Your task to perform on an android device: choose inbox layout in the gmail app Image 0: 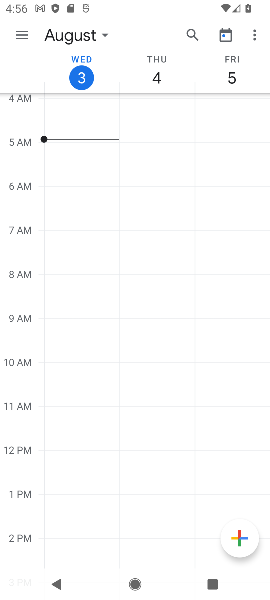
Step 0: press home button
Your task to perform on an android device: choose inbox layout in the gmail app Image 1: 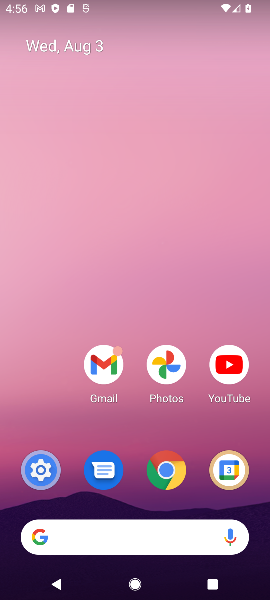
Step 1: drag from (203, 417) to (59, 0)
Your task to perform on an android device: choose inbox layout in the gmail app Image 2: 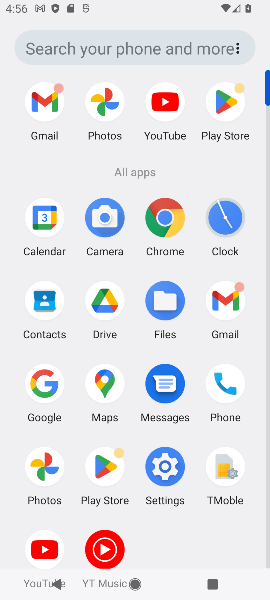
Step 2: click (219, 301)
Your task to perform on an android device: choose inbox layout in the gmail app Image 3: 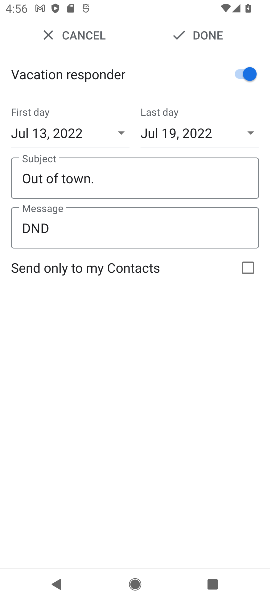
Step 3: click (40, 30)
Your task to perform on an android device: choose inbox layout in the gmail app Image 4: 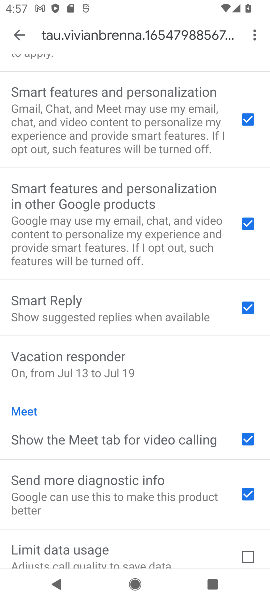
Step 4: drag from (75, 87) to (136, 382)
Your task to perform on an android device: choose inbox layout in the gmail app Image 5: 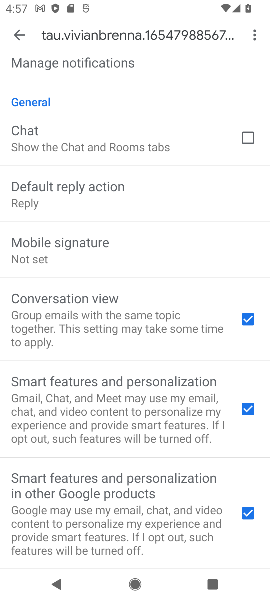
Step 5: drag from (117, 80) to (115, 350)
Your task to perform on an android device: choose inbox layout in the gmail app Image 6: 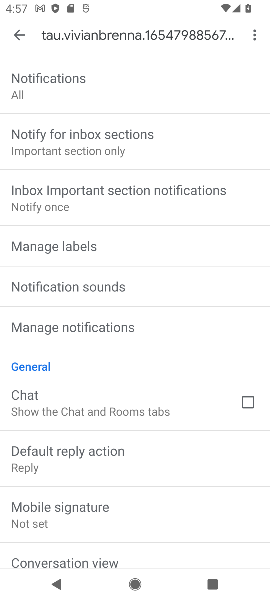
Step 6: drag from (126, 70) to (99, 368)
Your task to perform on an android device: choose inbox layout in the gmail app Image 7: 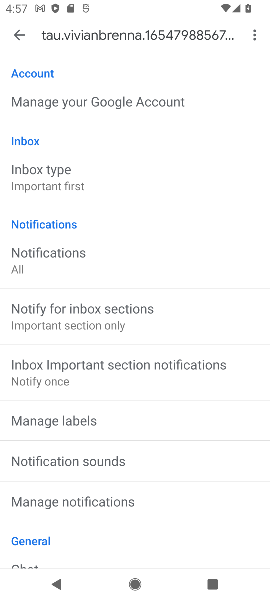
Step 7: click (60, 172)
Your task to perform on an android device: choose inbox layout in the gmail app Image 8: 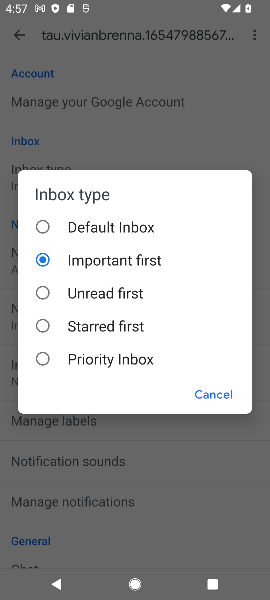
Step 8: task complete